Your task to perform on an android device: Go to privacy settings Image 0: 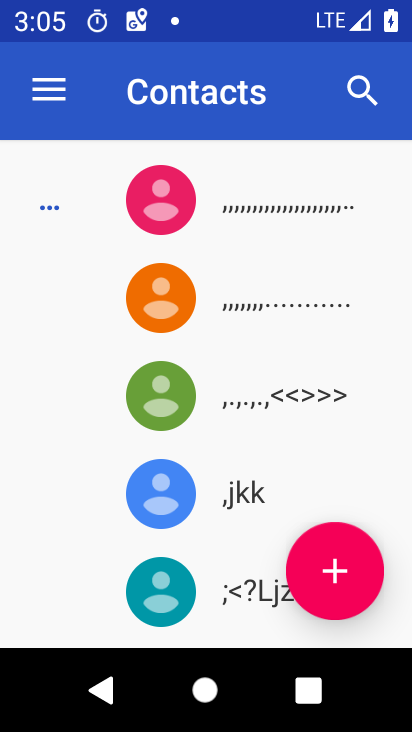
Step 0: press home button
Your task to perform on an android device: Go to privacy settings Image 1: 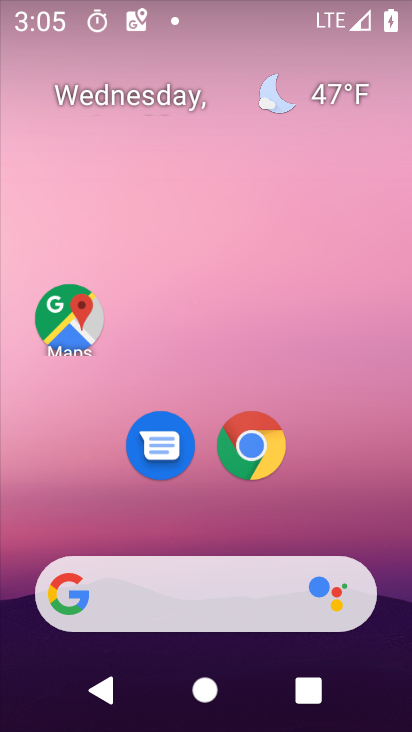
Step 1: drag from (376, 520) to (291, 1)
Your task to perform on an android device: Go to privacy settings Image 2: 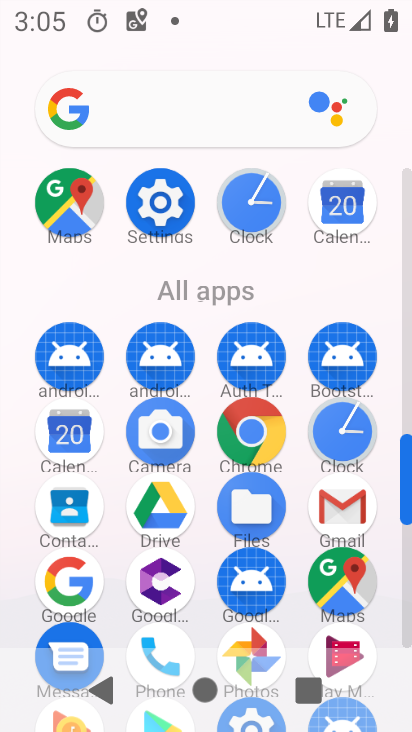
Step 2: click (164, 208)
Your task to perform on an android device: Go to privacy settings Image 3: 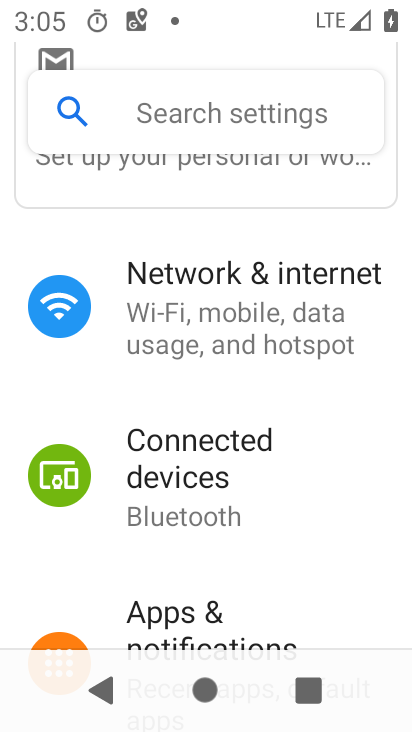
Step 3: drag from (353, 523) to (351, 62)
Your task to perform on an android device: Go to privacy settings Image 4: 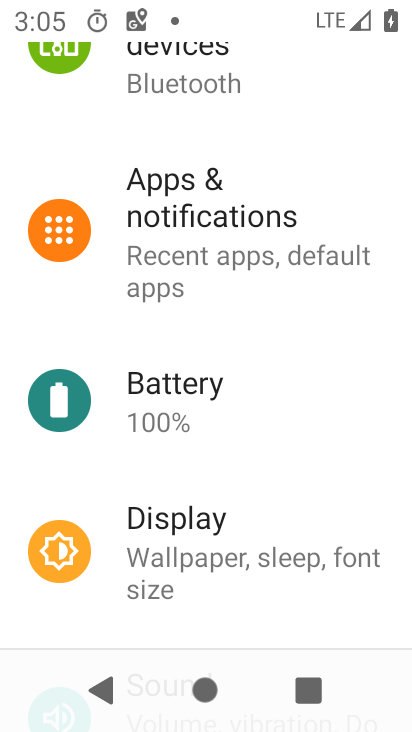
Step 4: drag from (302, 512) to (311, 167)
Your task to perform on an android device: Go to privacy settings Image 5: 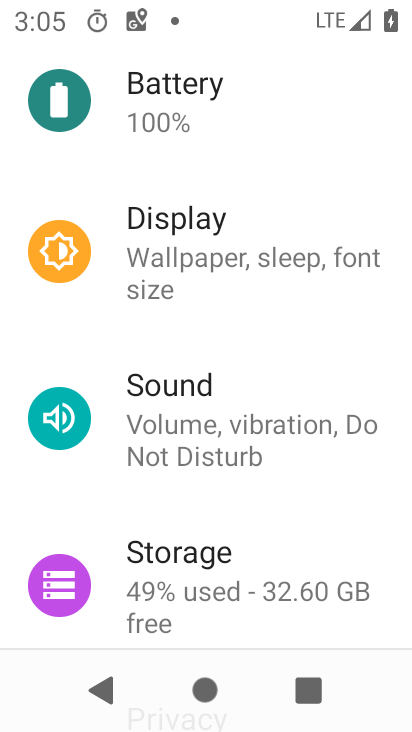
Step 5: drag from (305, 485) to (304, 173)
Your task to perform on an android device: Go to privacy settings Image 6: 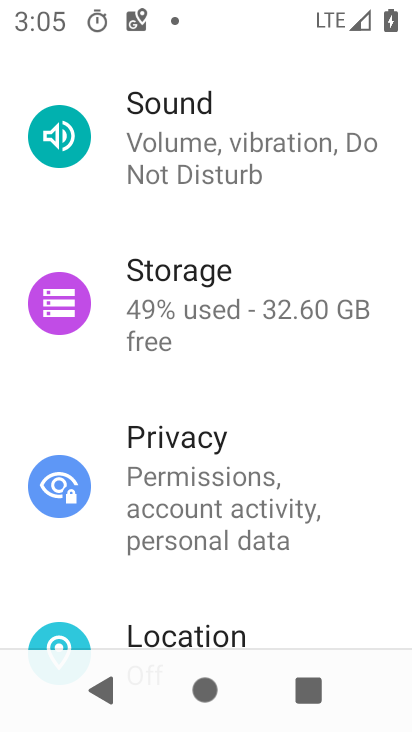
Step 6: click (184, 465)
Your task to perform on an android device: Go to privacy settings Image 7: 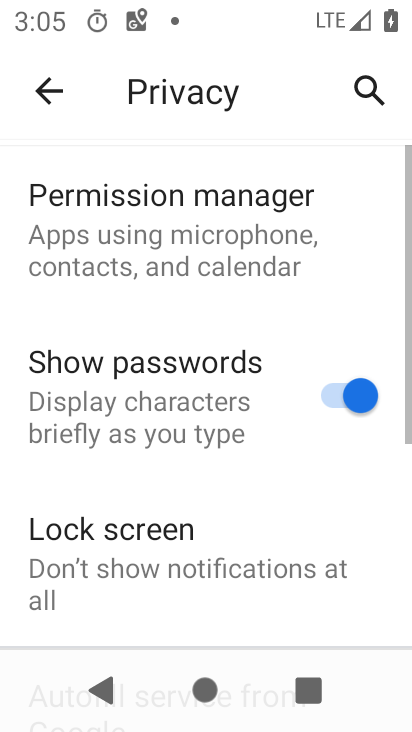
Step 7: task complete